Your task to perform on an android device: turn off airplane mode Image 0: 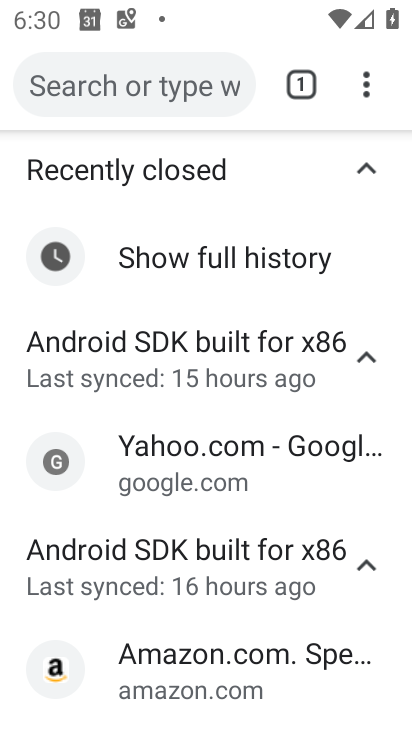
Step 0: press home button
Your task to perform on an android device: turn off airplane mode Image 1: 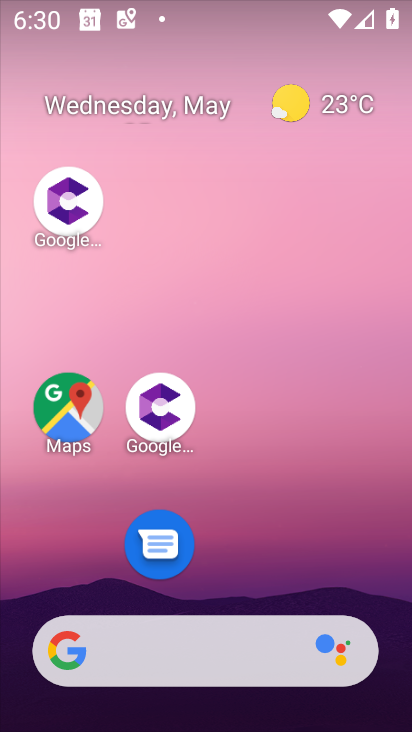
Step 1: drag from (259, 529) to (192, 13)
Your task to perform on an android device: turn off airplane mode Image 2: 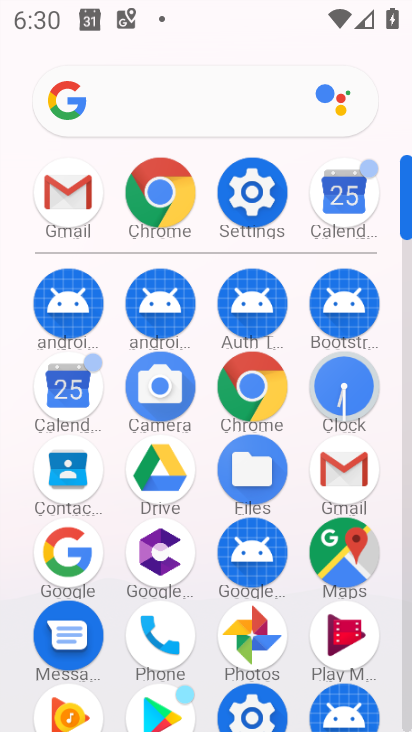
Step 2: click (256, 192)
Your task to perform on an android device: turn off airplane mode Image 3: 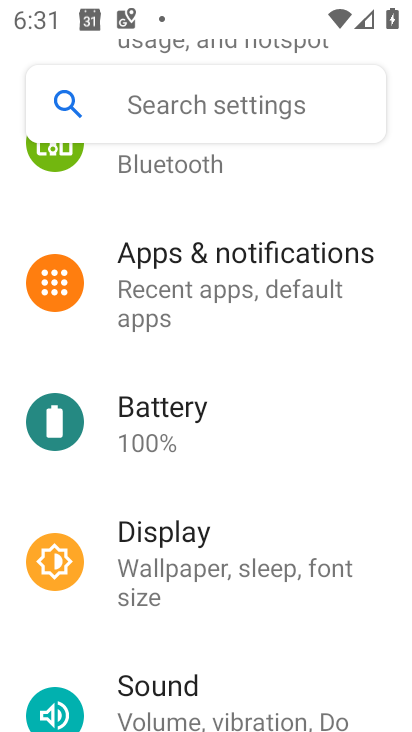
Step 3: drag from (249, 211) to (225, 730)
Your task to perform on an android device: turn off airplane mode Image 4: 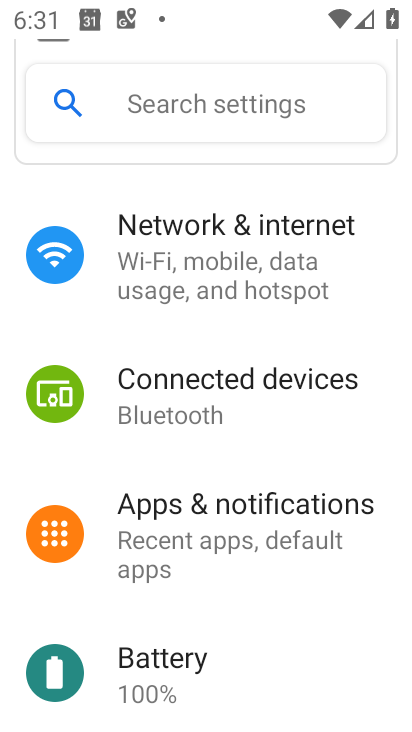
Step 4: click (216, 226)
Your task to perform on an android device: turn off airplane mode Image 5: 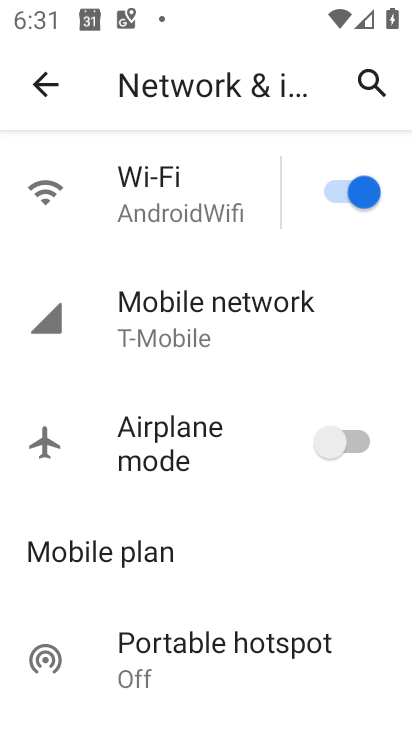
Step 5: task complete